Your task to perform on an android device: Turn off the flashlight Image 0: 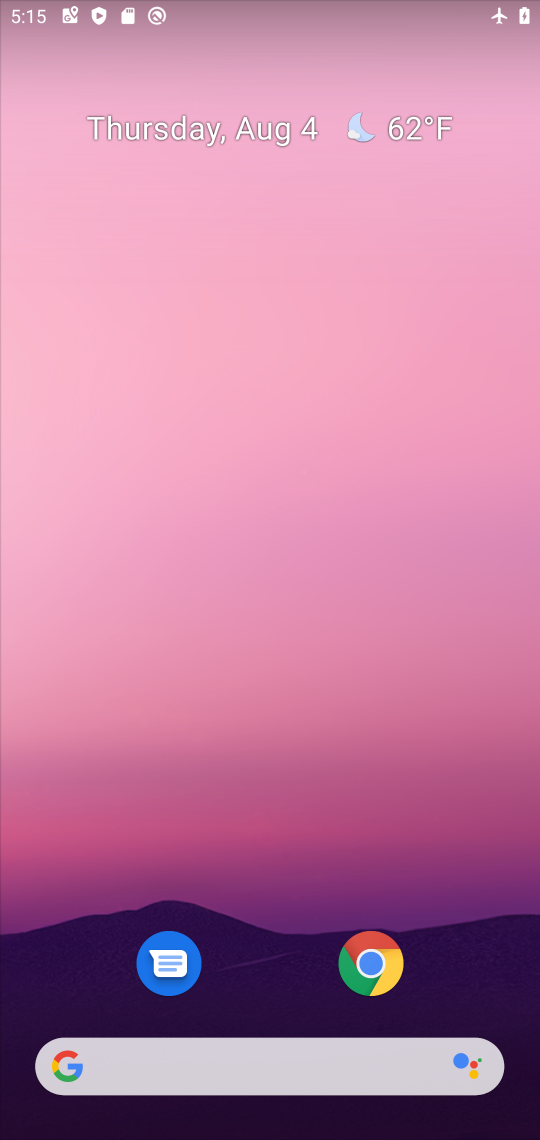
Step 0: drag from (250, 808) to (241, 153)
Your task to perform on an android device: Turn off the flashlight Image 1: 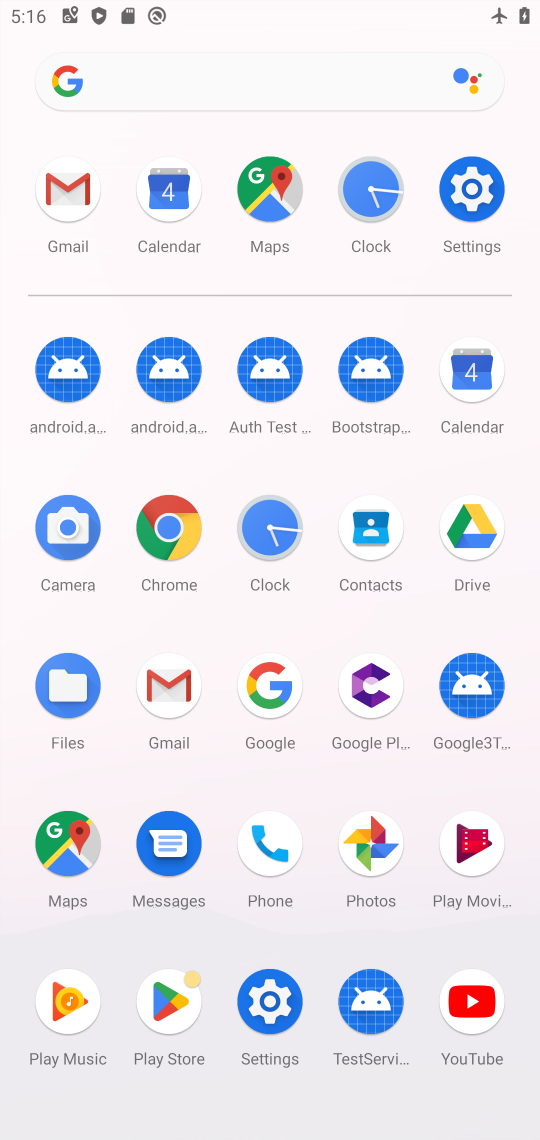
Step 1: click (464, 181)
Your task to perform on an android device: Turn off the flashlight Image 2: 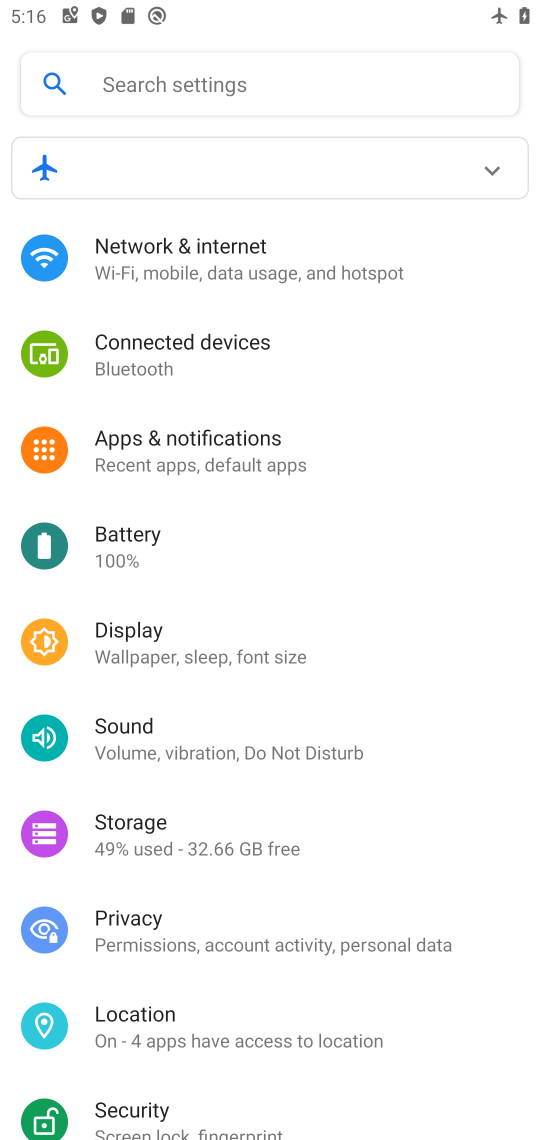
Step 2: click (147, 631)
Your task to perform on an android device: Turn off the flashlight Image 3: 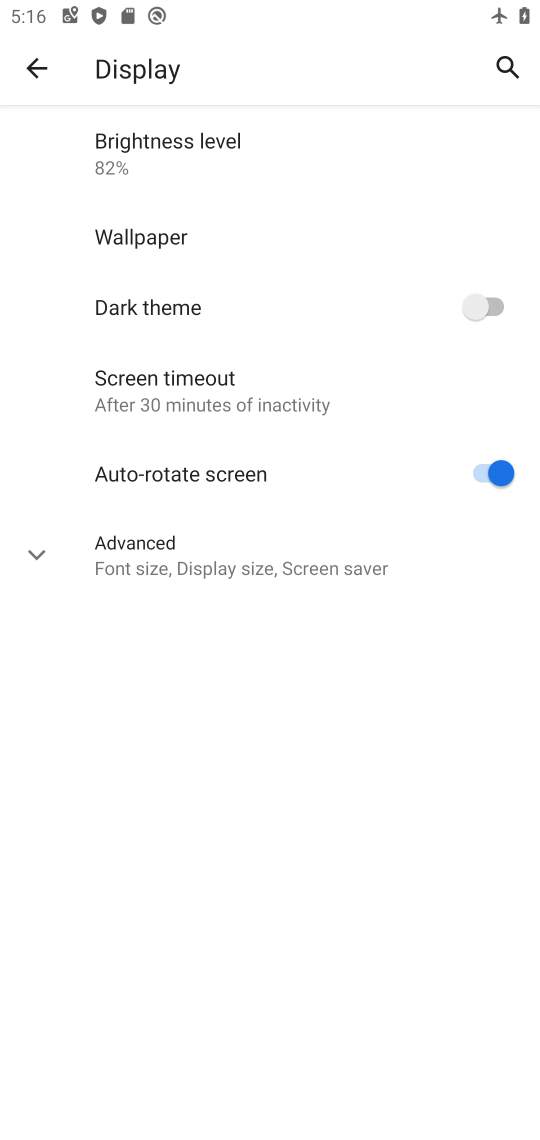
Step 3: task complete